Your task to perform on an android device: visit the assistant section in the google photos Image 0: 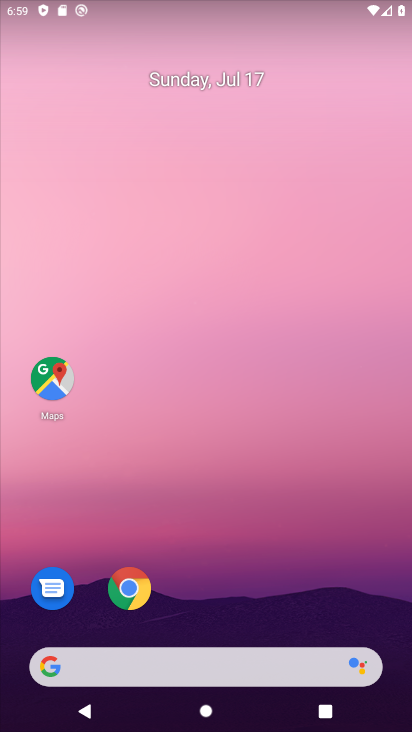
Step 0: drag from (301, 627) to (300, 2)
Your task to perform on an android device: visit the assistant section in the google photos Image 1: 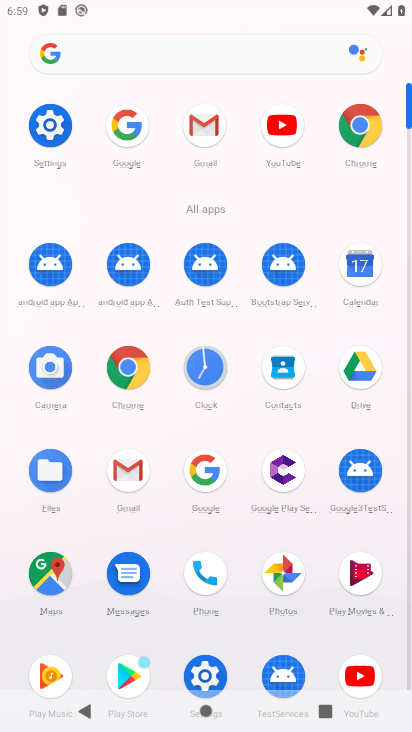
Step 1: click (288, 581)
Your task to perform on an android device: visit the assistant section in the google photos Image 2: 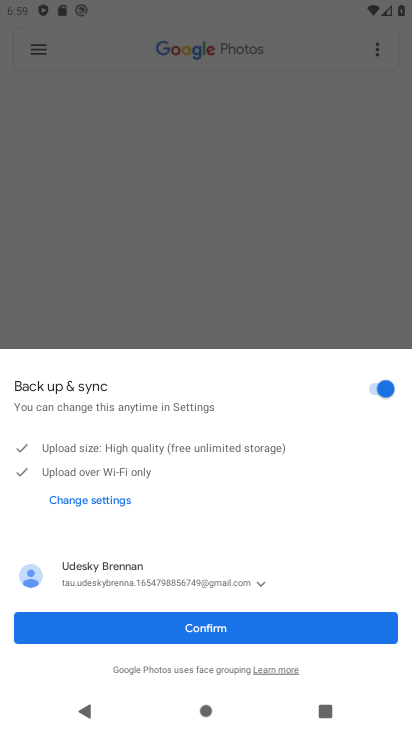
Step 2: click (201, 614)
Your task to perform on an android device: visit the assistant section in the google photos Image 3: 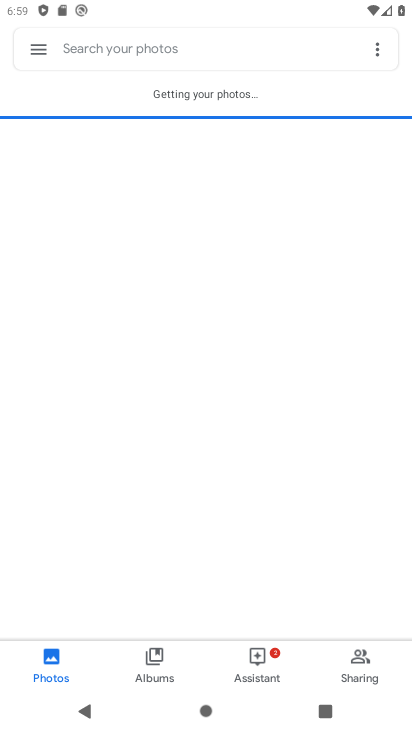
Step 3: click (250, 660)
Your task to perform on an android device: visit the assistant section in the google photos Image 4: 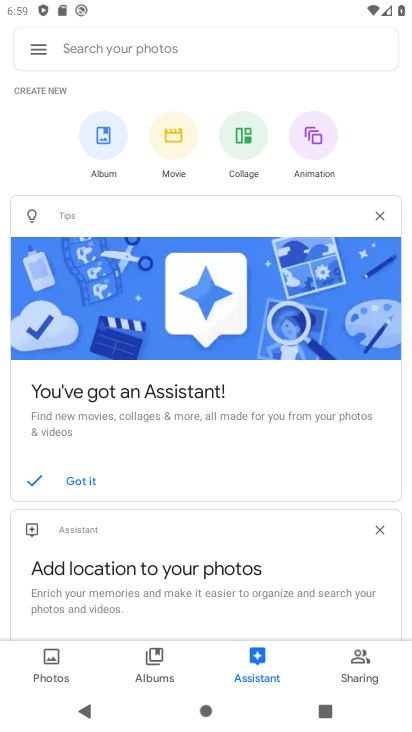
Step 4: task complete